Your task to perform on an android device: See recent photos Image 0: 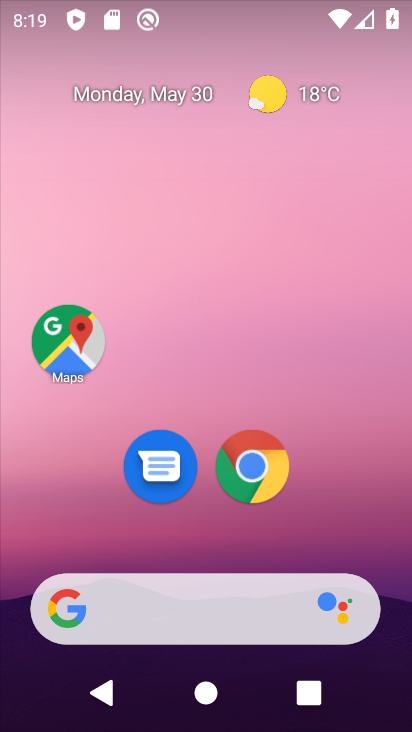
Step 0: drag from (313, 521) to (322, 36)
Your task to perform on an android device: See recent photos Image 1: 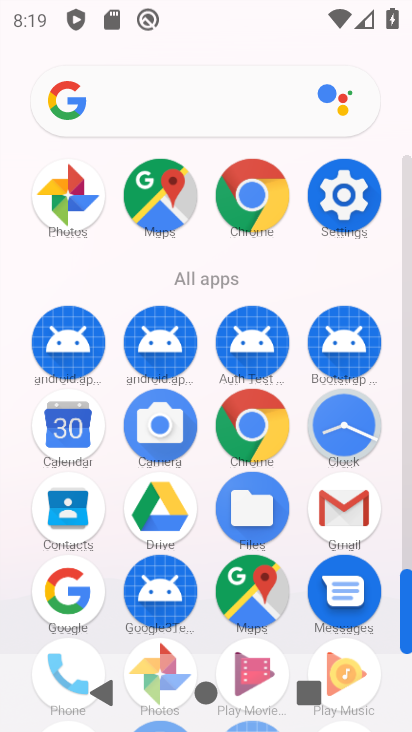
Step 1: click (67, 186)
Your task to perform on an android device: See recent photos Image 2: 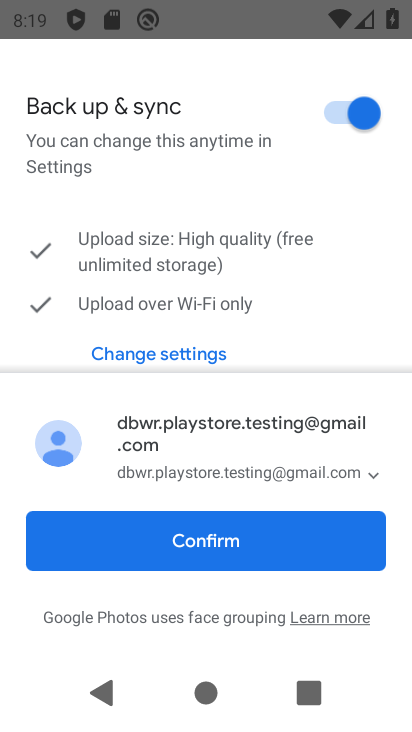
Step 2: click (172, 551)
Your task to perform on an android device: See recent photos Image 3: 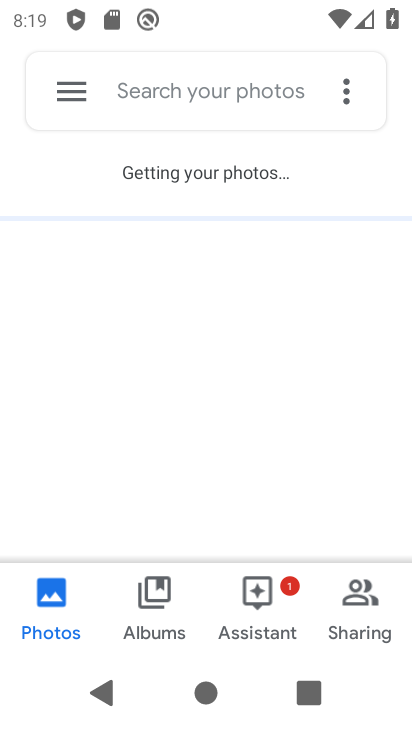
Step 3: click (38, 602)
Your task to perform on an android device: See recent photos Image 4: 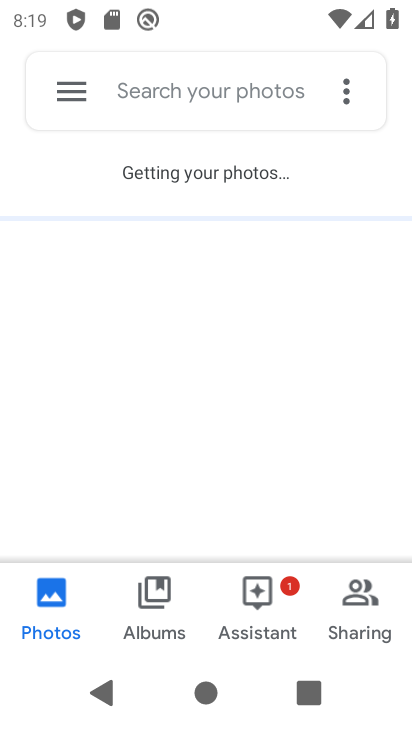
Step 4: click (38, 602)
Your task to perform on an android device: See recent photos Image 5: 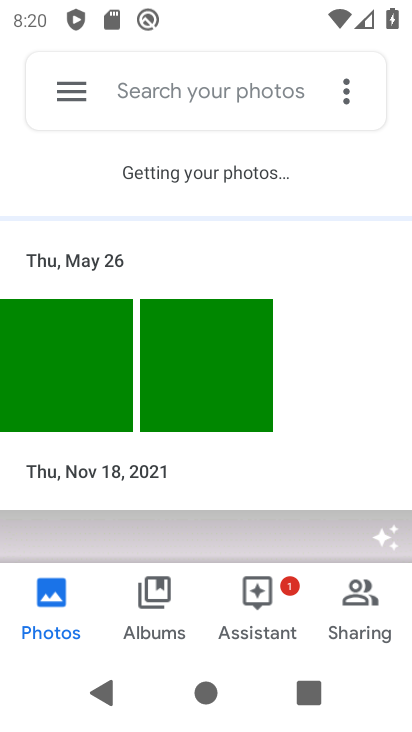
Step 5: task complete